Your task to perform on an android device: change the clock display to digital Image 0: 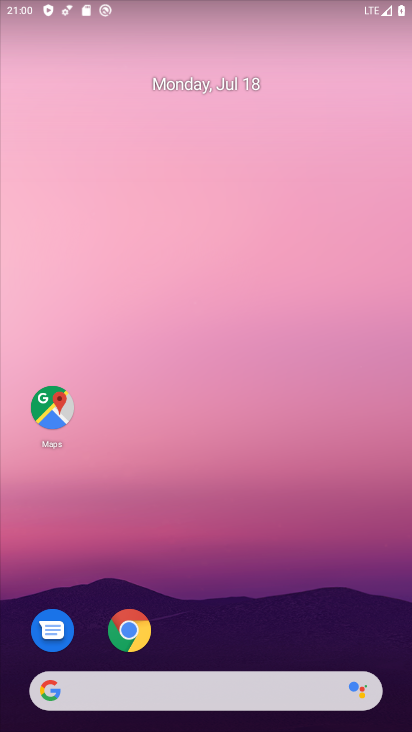
Step 0: drag from (250, 646) to (321, 198)
Your task to perform on an android device: change the clock display to digital Image 1: 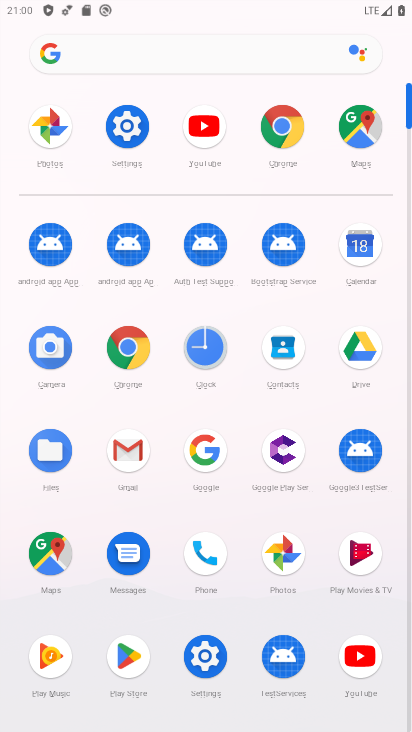
Step 1: click (203, 338)
Your task to perform on an android device: change the clock display to digital Image 2: 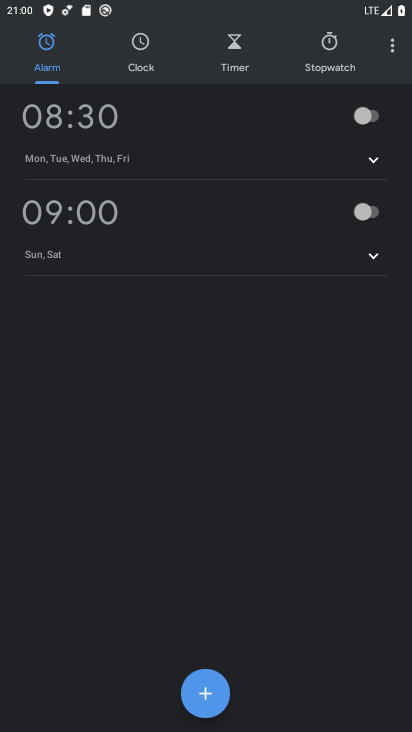
Step 2: click (390, 48)
Your task to perform on an android device: change the clock display to digital Image 3: 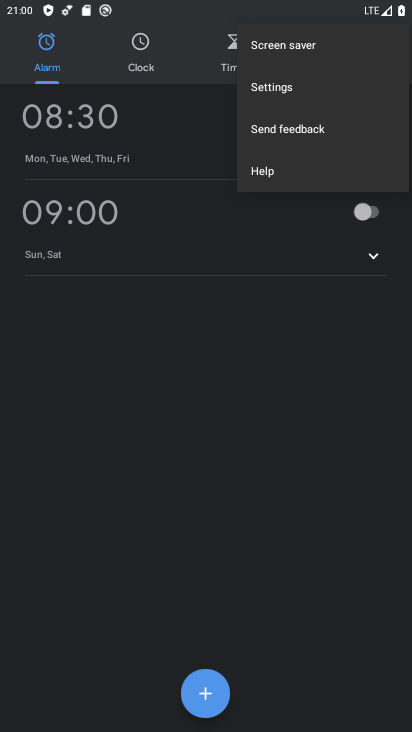
Step 3: click (265, 90)
Your task to perform on an android device: change the clock display to digital Image 4: 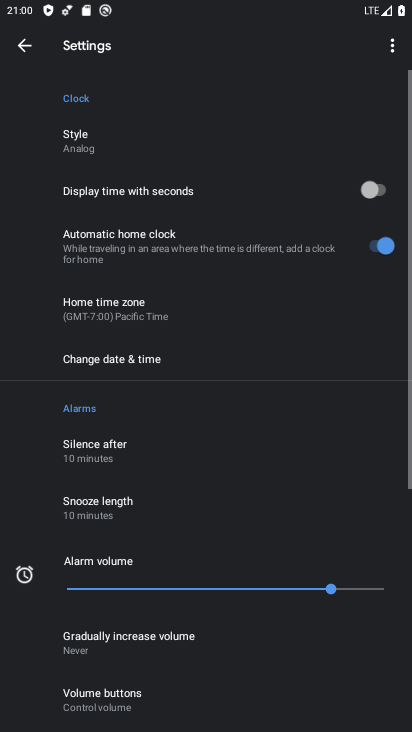
Step 4: click (85, 134)
Your task to perform on an android device: change the clock display to digital Image 5: 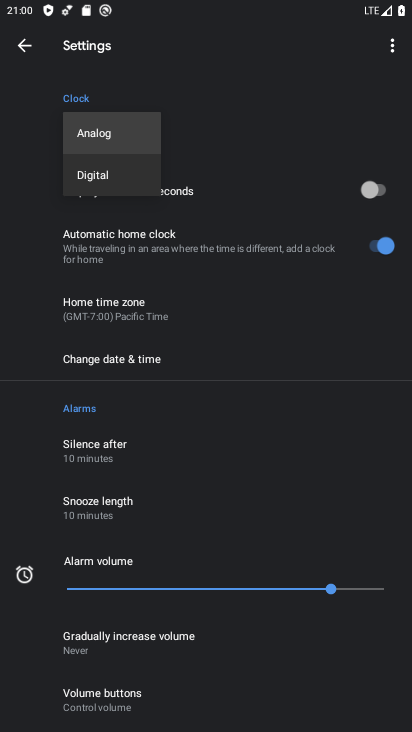
Step 5: click (110, 172)
Your task to perform on an android device: change the clock display to digital Image 6: 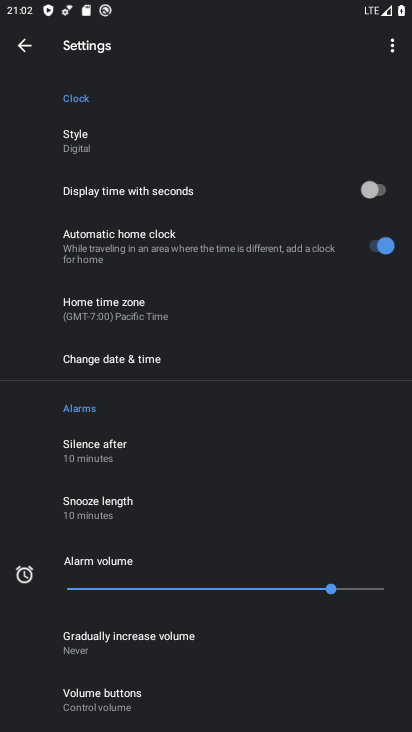
Step 6: task complete